Your task to perform on an android device: Is it going to rain today? Image 0: 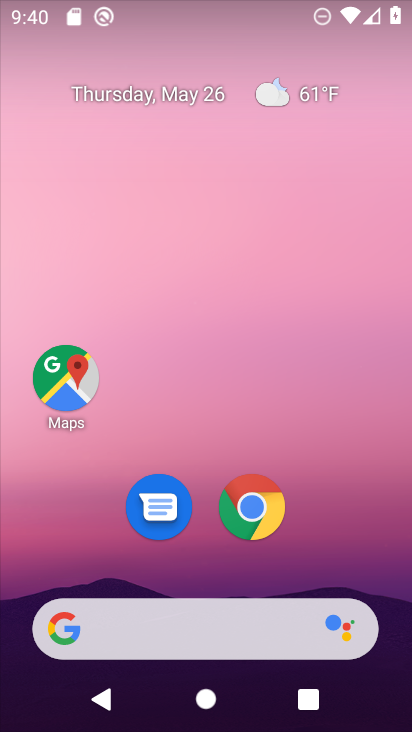
Step 0: drag from (321, 557) to (295, 224)
Your task to perform on an android device: Is it going to rain today? Image 1: 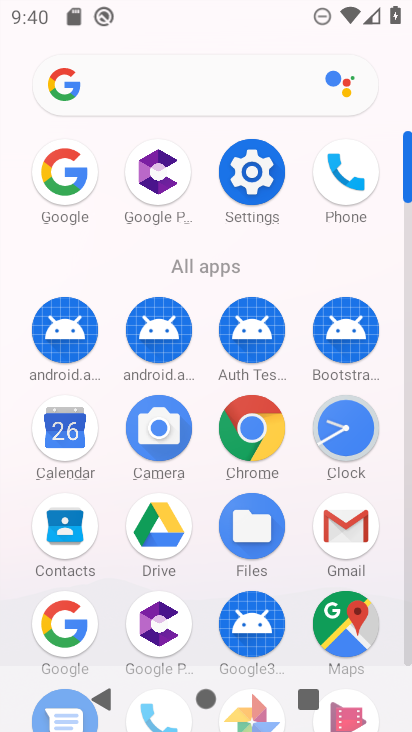
Step 1: click (61, 622)
Your task to perform on an android device: Is it going to rain today? Image 2: 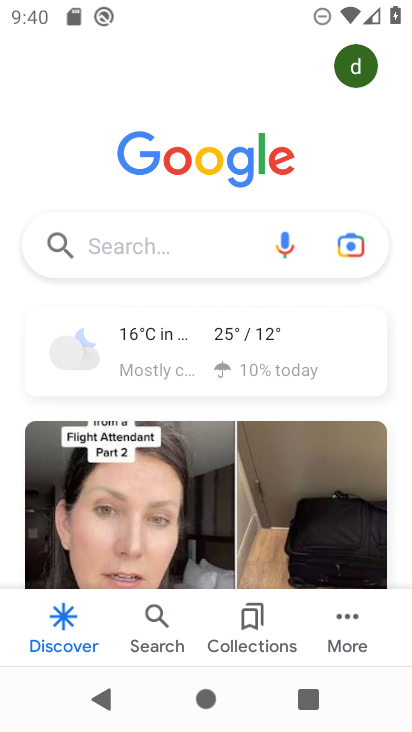
Step 2: click (270, 348)
Your task to perform on an android device: Is it going to rain today? Image 3: 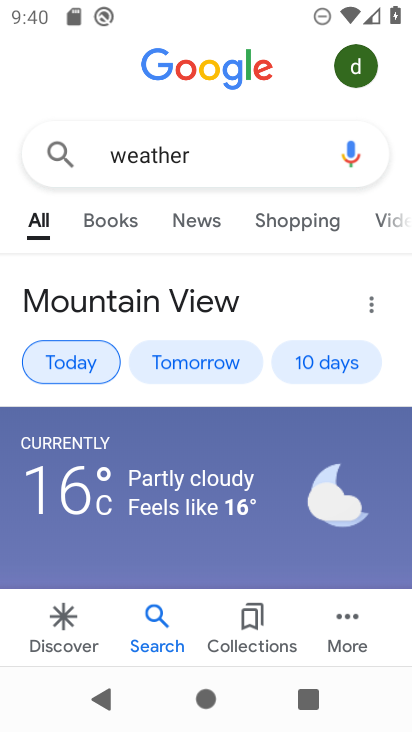
Step 3: task complete